Your task to perform on an android device: turn off location history Image 0: 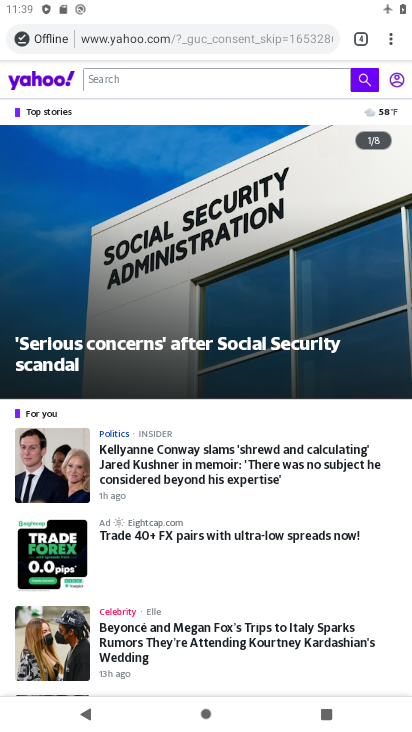
Step 0: press home button
Your task to perform on an android device: turn off location history Image 1: 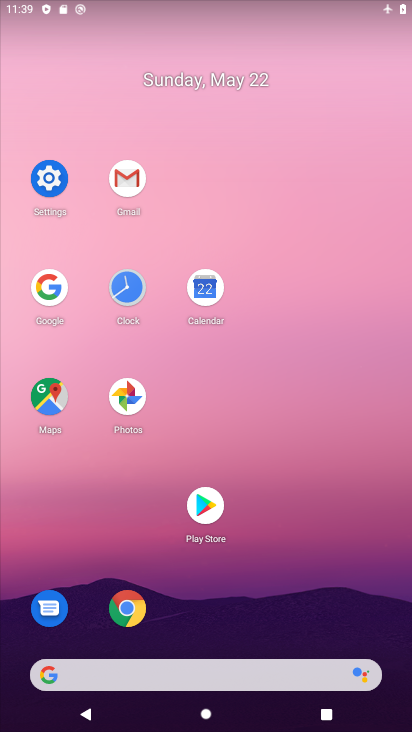
Step 1: click (61, 177)
Your task to perform on an android device: turn off location history Image 2: 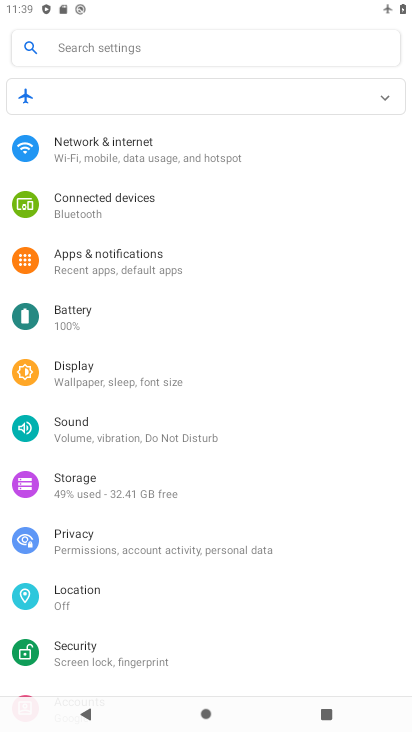
Step 2: click (153, 595)
Your task to perform on an android device: turn off location history Image 3: 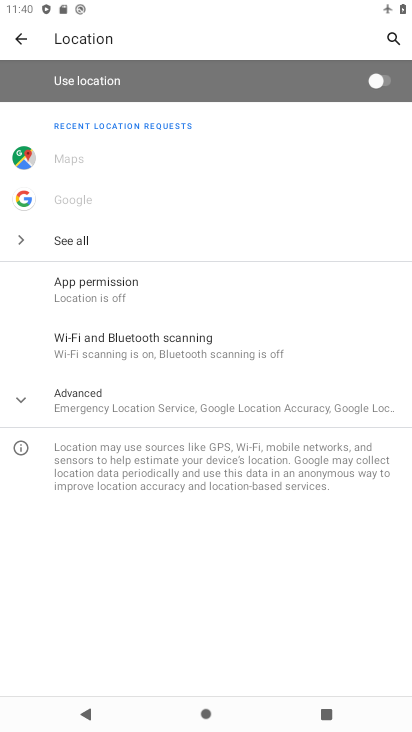
Step 3: click (165, 391)
Your task to perform on an android device: turn off location history Image 4: 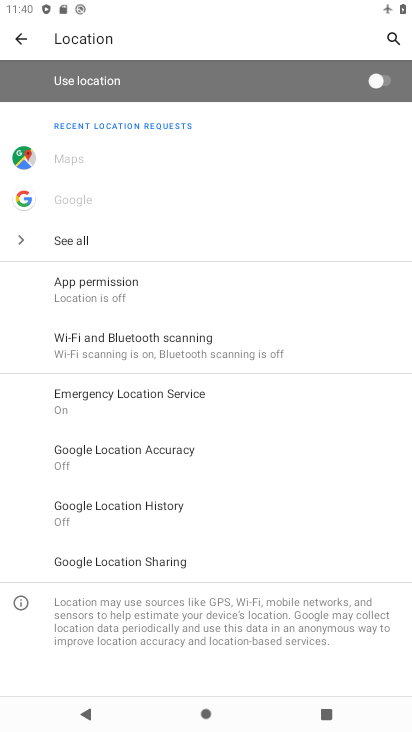
Step 4: click (186, 505)
Your task to perform on an android device: turn off location history Image 5: 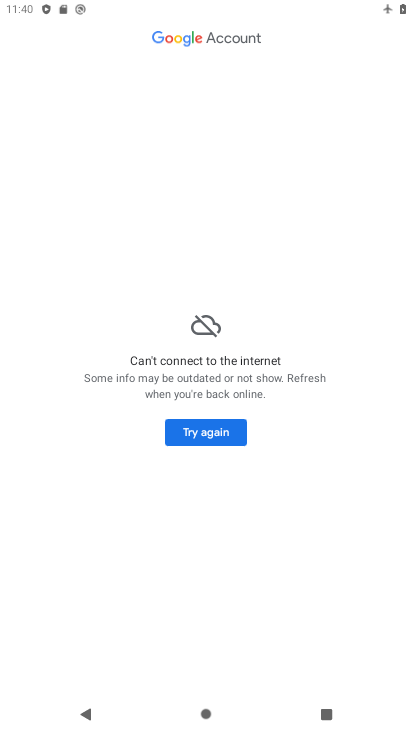
Step 5: task complete